Your task to perform on an android device: Open Wikipedia Image 0: 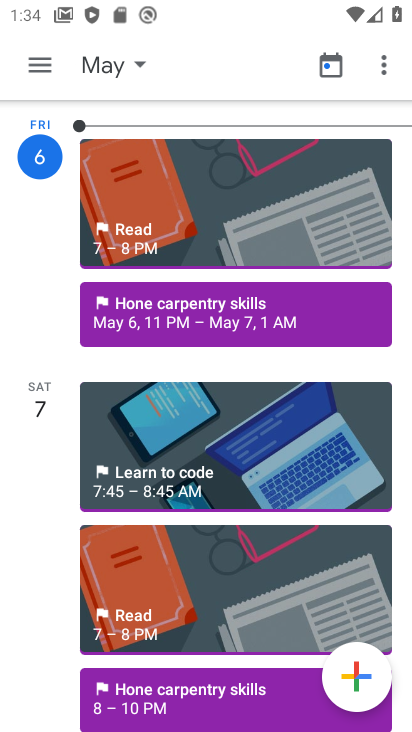
Step 0: press home button
Your task to perform on an android device: Open Wikipedia Image 1: 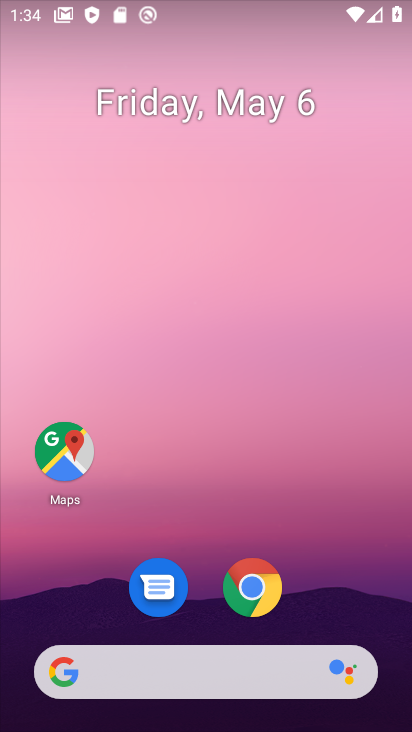
Step 1: click (241, 581)
Your task to perform on an android device: Open Wikipedia Image 2: 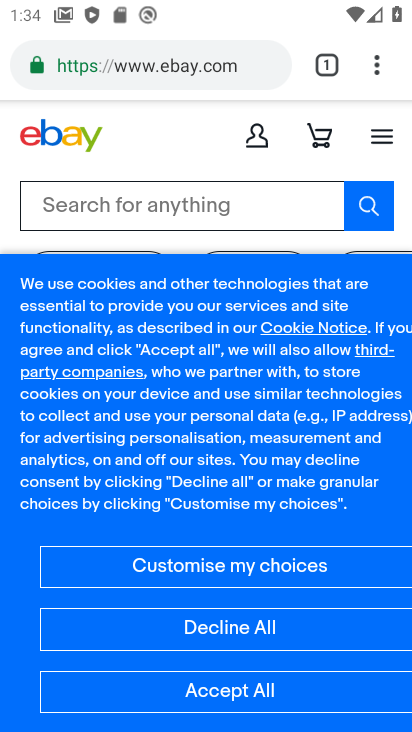
Step 2: drag from (377, 58) to (137, 148)
Your task to perform on an android device: Open Wikipedia Image 3: 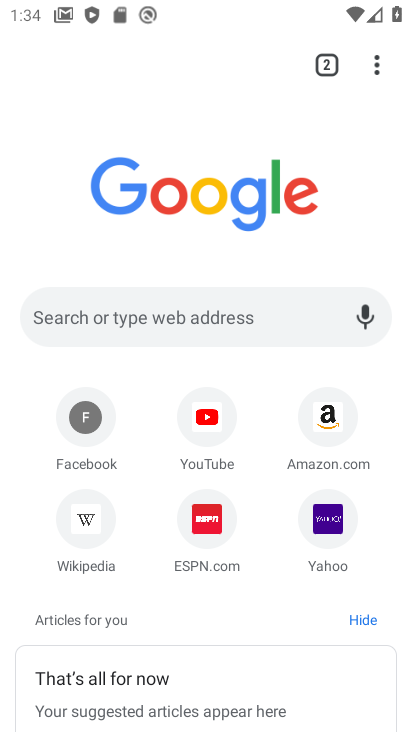
Step 3: click (85, 520)
Your task to perform on an android device: Open Wikipedia Image 4: 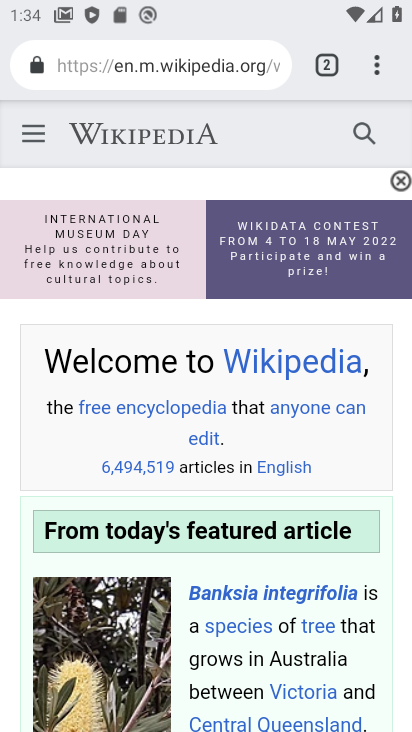
Step 4: task complete